Your task to perform on an android device: Open Youtube and go to the subscriptions tab Image 0: 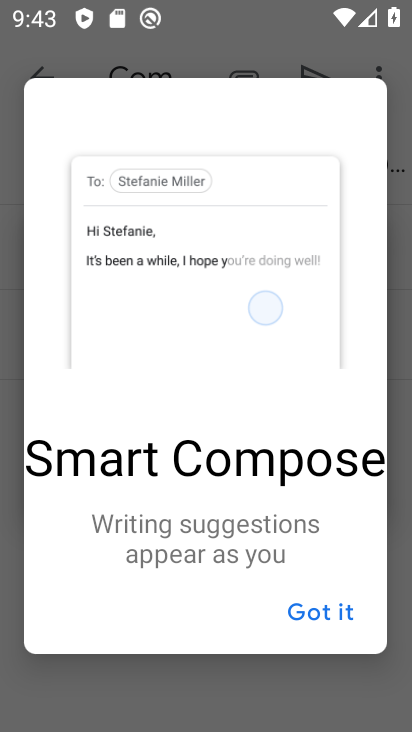
Step 0: press home button
Your task to perform on an android device: Open Youtube and go to the subscriptions tab Image 1: 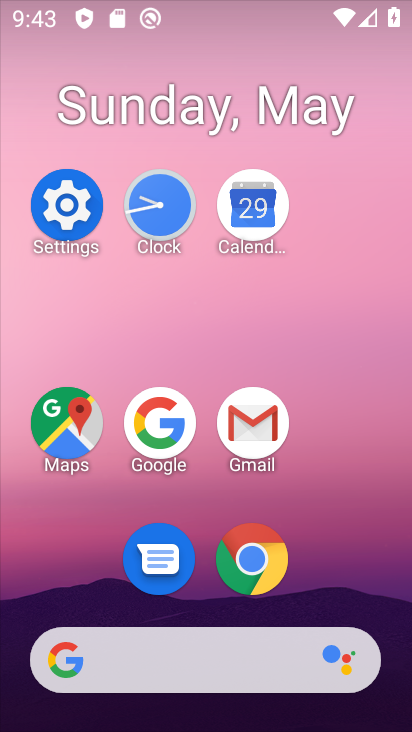
Step 1: drag from (358, 574) to (364, 75)
Your task to perform on an android device: Open Youtube and go to the subscriptions tab Image 2: 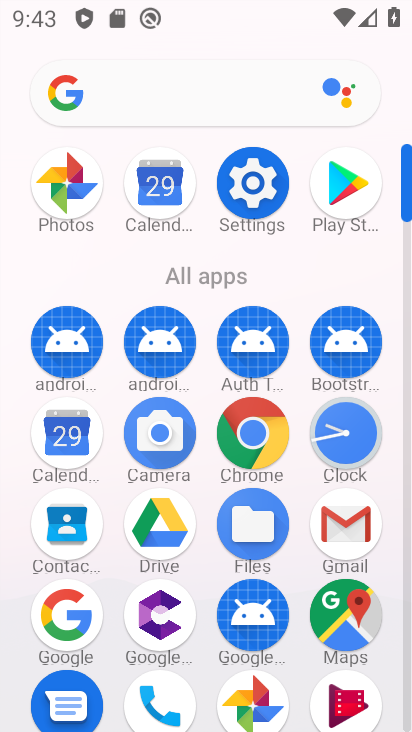
Step 2: drag from (283, 613) to (243, 203)
Your task to perform on an android device: Open Youtube and go to the subscriptions tab Image 3: 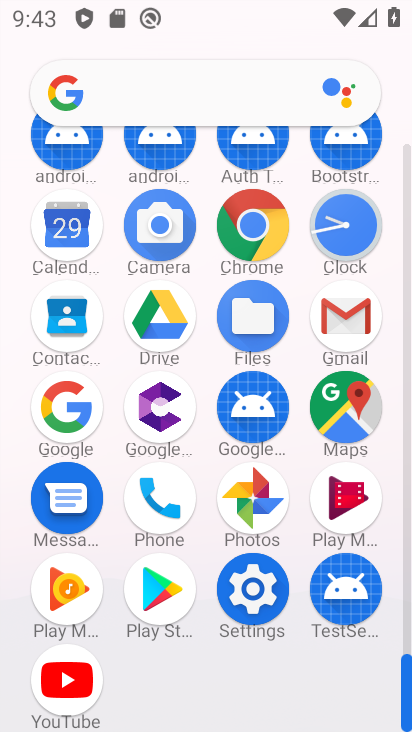
Step 3: drag from (57, 660) to (77, 356)
Your task to perform on an android device: Open Youtube and go to the subscriptions tab Image 4: 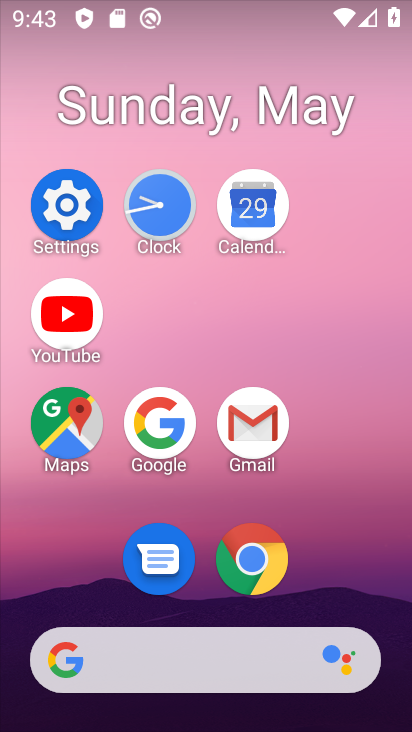
Step 4: click (65, 325)
Your task to perform on an android device: Open Youtube and go to the subscriptions tab Image 5: 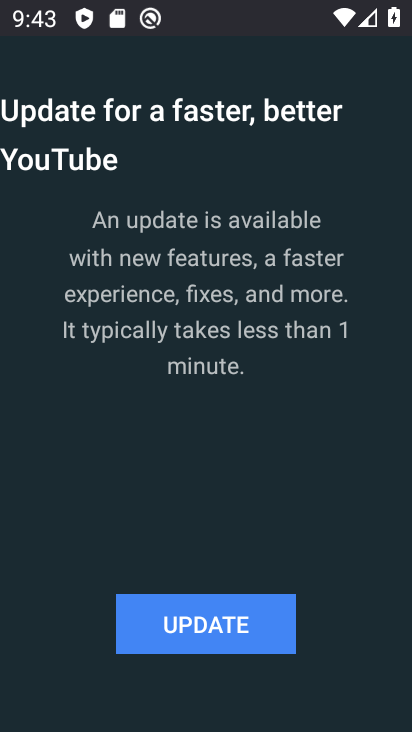
Step 5: click (273, 640)
Your task to perform on an android device: Open Youtube and go to the subscriptions tab Image 6: 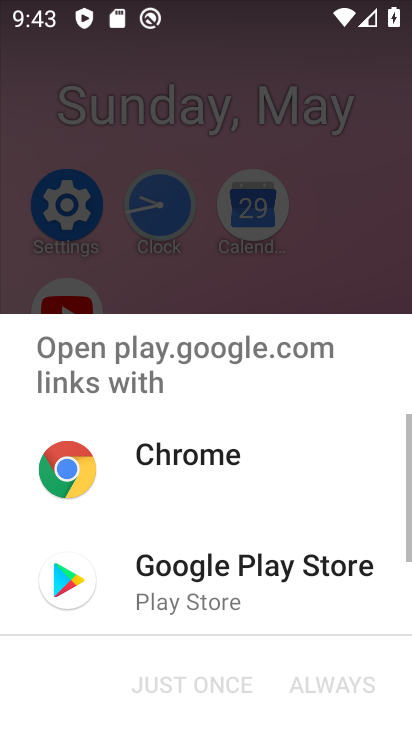
Step 6: click (232, 585)
Your task to perform on an android device: Open Youtube and go to the subscriptions tab Image 7: 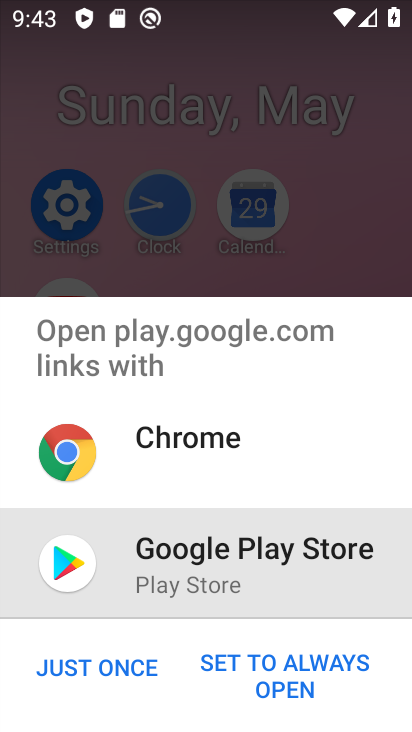
Step 7: click (148, 560)
Your task to perform on an android device: Open Youtube and go to the subscriptions tab Image 8: 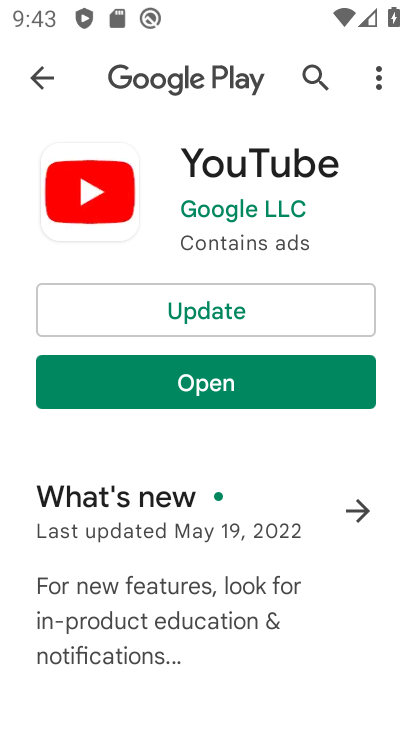
Step 8: click (148, 306)
Your task to perform on an android device: Open Youtube and go to the subscriptions tab Image 9: 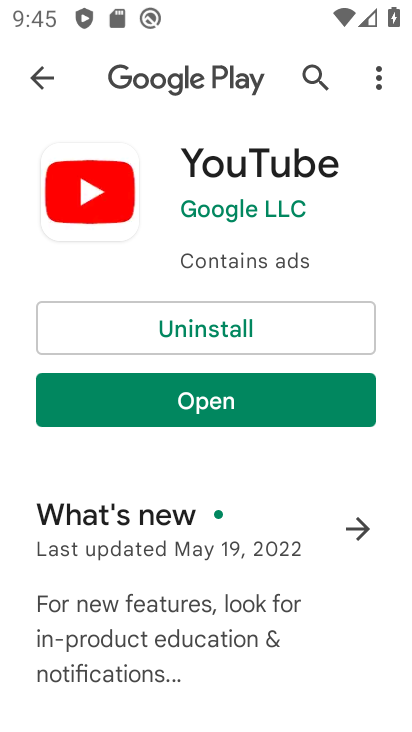
Step 9: click (223, 397)
Your task to perform on an android device: Open Youtube and go to the subscriptions tab Image 10: 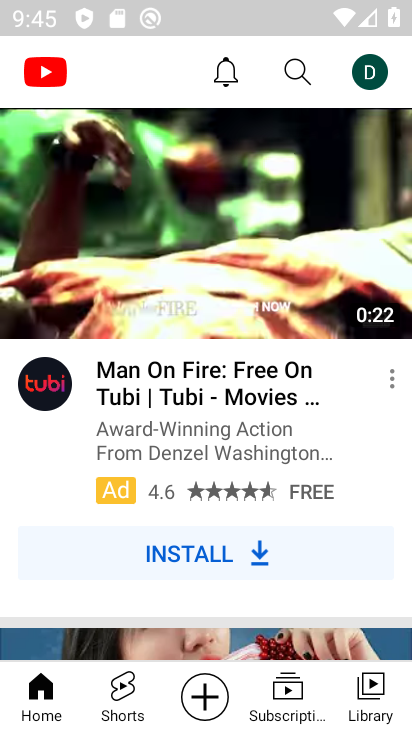
Step 10: click (284, 704)
Your task to perform on an android device: Open Youtube and go to the subscriptions tab Image 11: 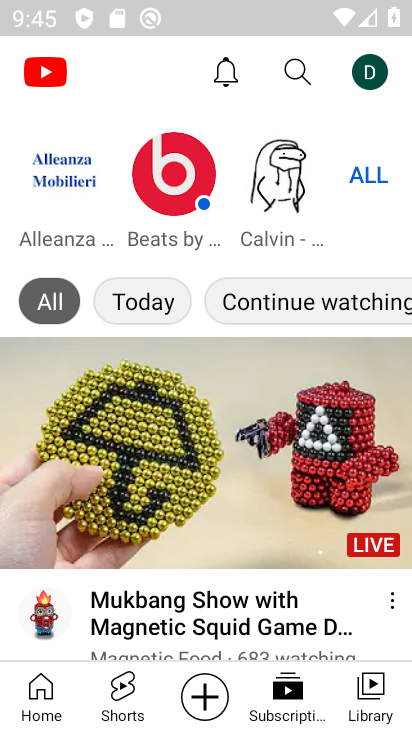
Step 11: task complete